Your task to perform on an android device: Open the calendar app, open the side menu, and click the "Day" option Image 0: 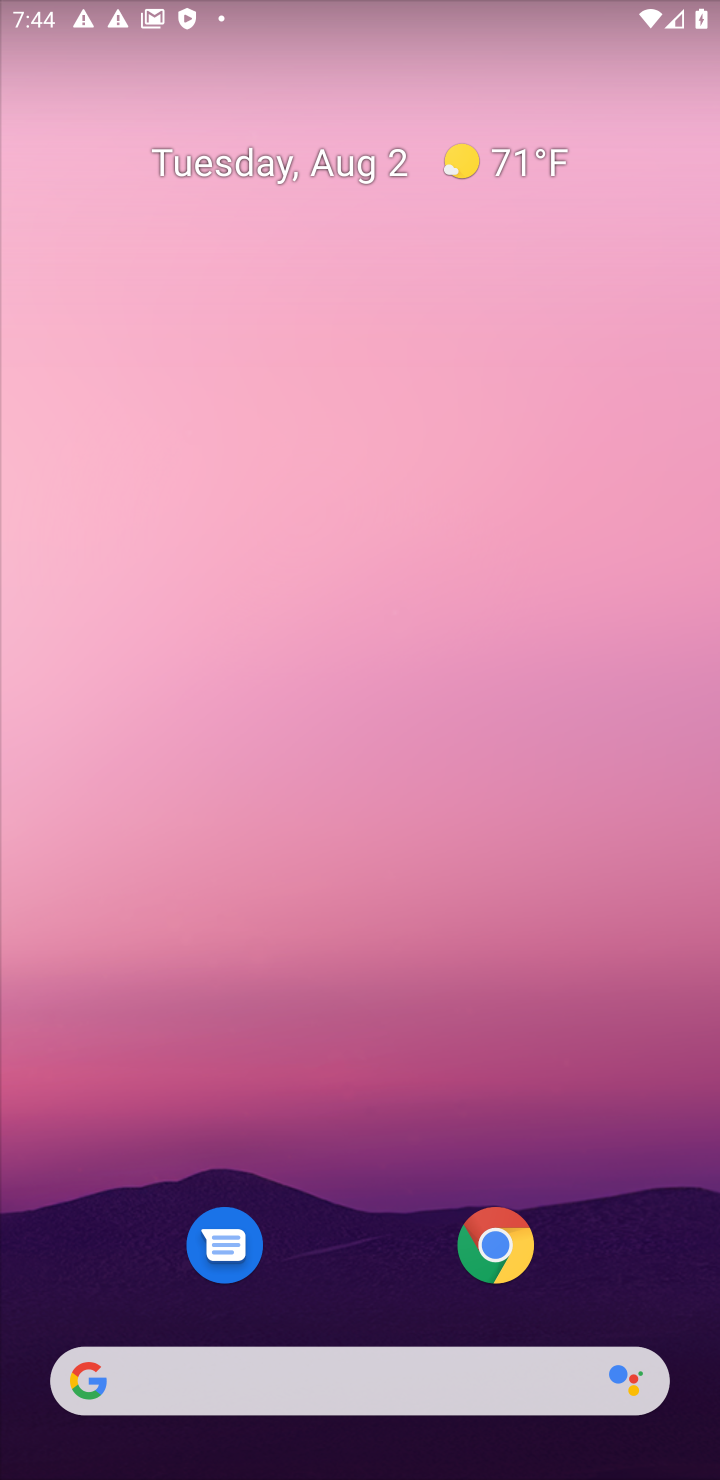
Step 0: click (328, 1248)
Your task to perform on an android device: Open the calendar app, open the side menu, and click the "Day" option Image 1: 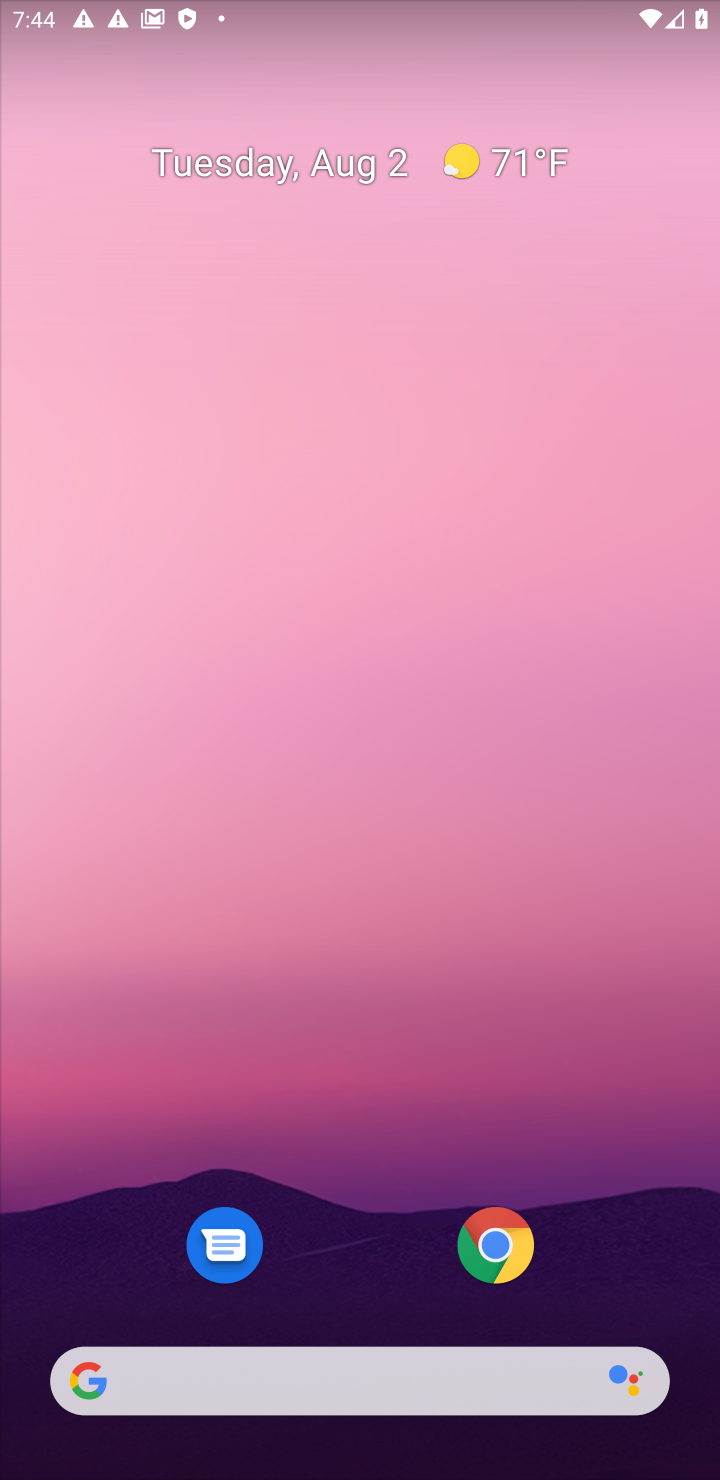
Step 1: click (286, 1247)
Your task to perform on an android device: Open the calendar app, open the side menu, and click the "Day" option Image 2: 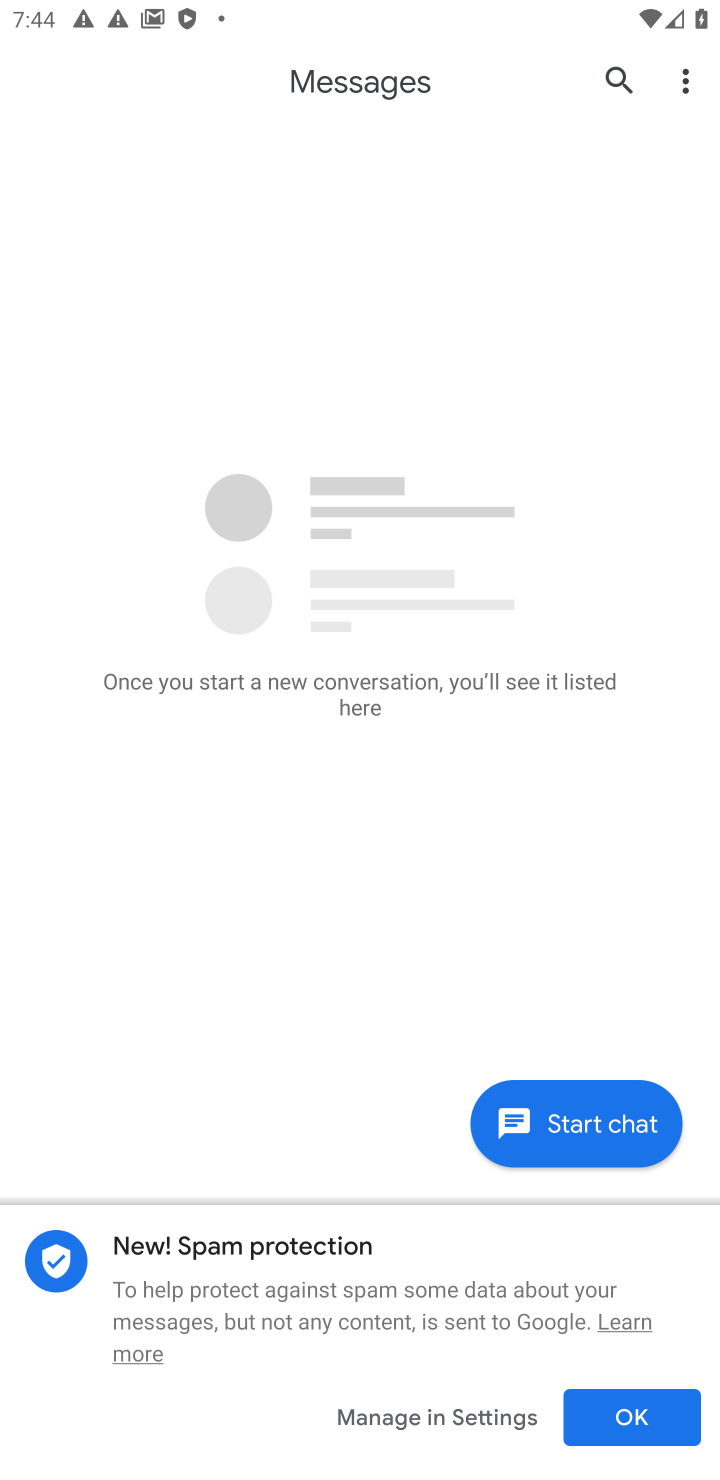
Step 2: press back button
Your task to perform on an android device: Open the calendar app, open the side menu, and click the "Day" option Image 3: 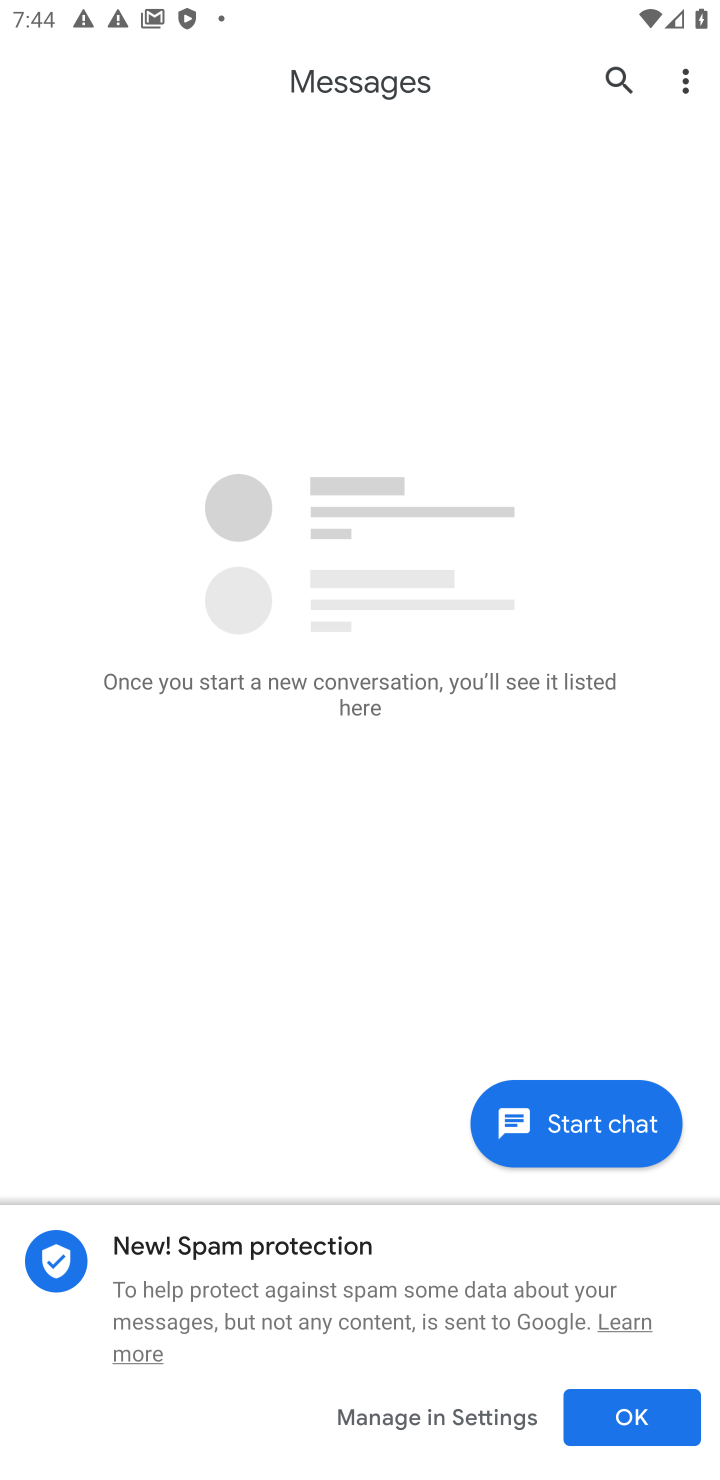
Step 3: press back button
Your task to perform on an android device: Open the calendar app, open the side menu, and click the "Day" option Image 4: 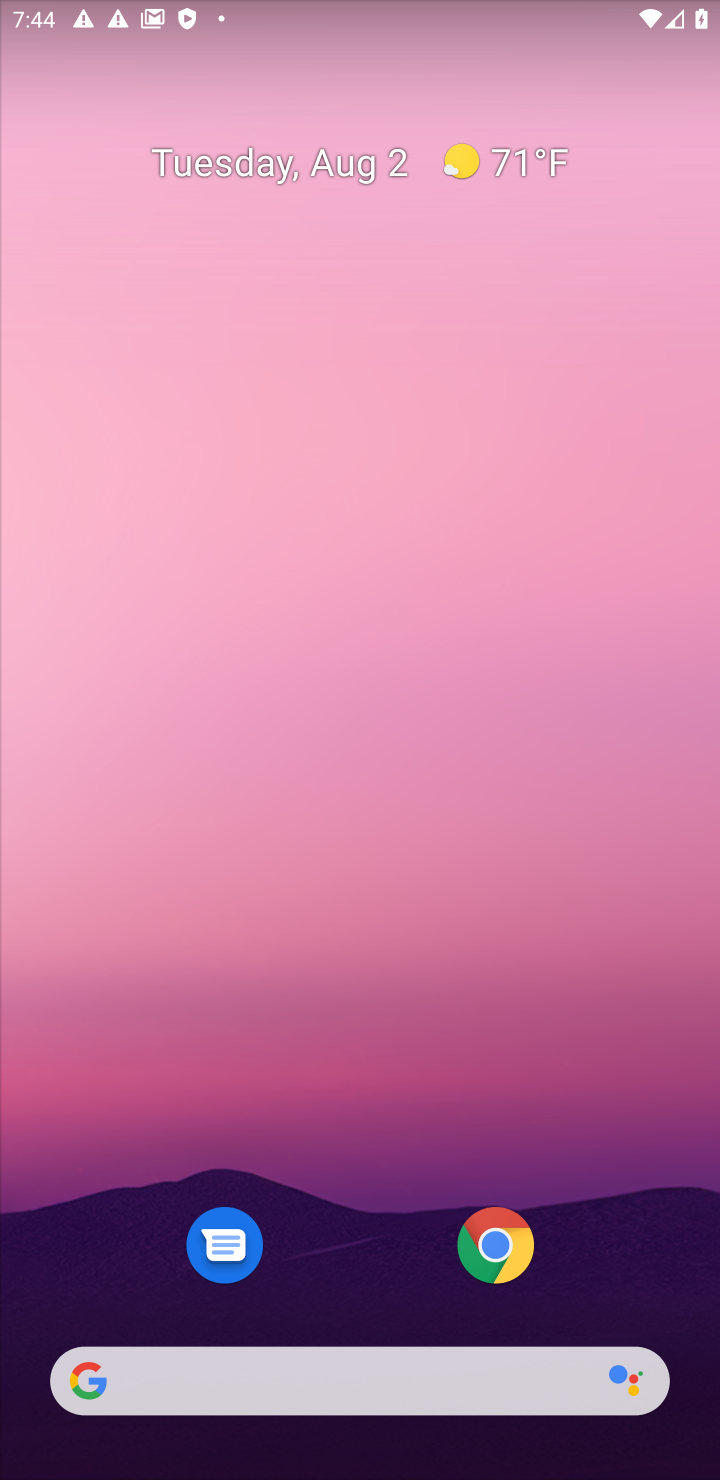
Step 4: drag from (345, 960) to (345, 232)
Your task to perform on an android device: Open the calendar app, open the side menu, and click the "Day" option Image 5: 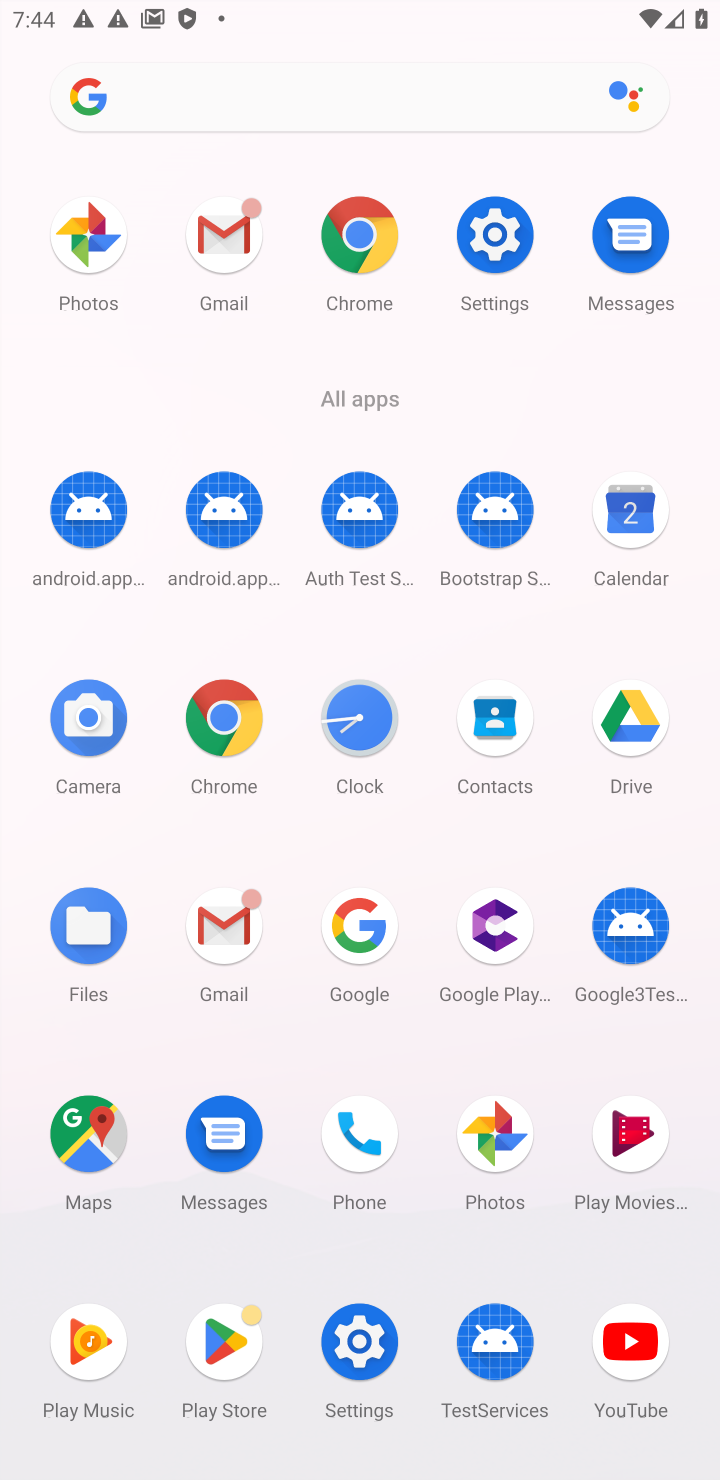
Step 5: click (612, 561)
Your task to perform on an android device: Open the calendar app, open the side menu, and click the "Day" option Image 6: 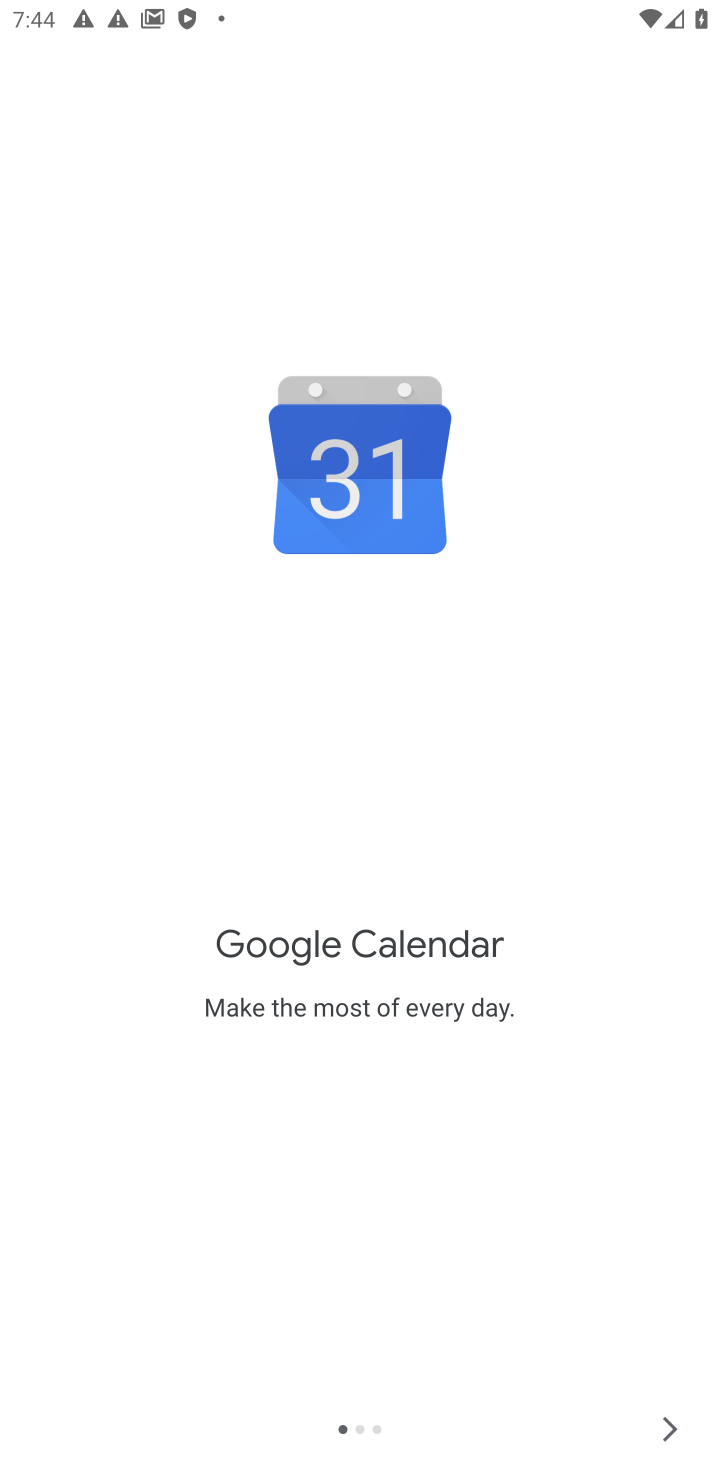
Step 6: click (665, 1431)
Your task to perform on an android device: Open the calendar app, open the side menu, and click the "Day" option Image 7: 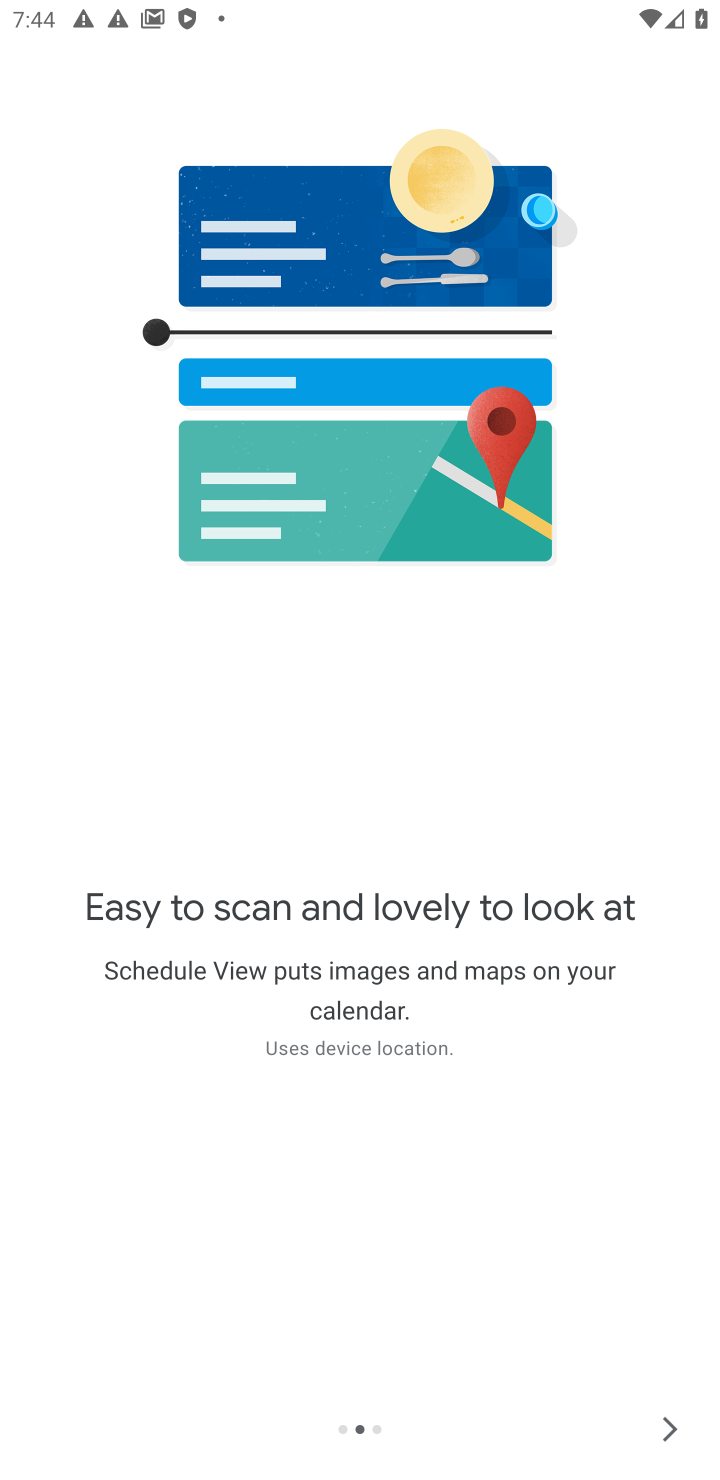
Step 7: click (665, 1431)
Your task to perform on an android device: Open the calendar app, open the side menu, and click the "Day" option Image 8: 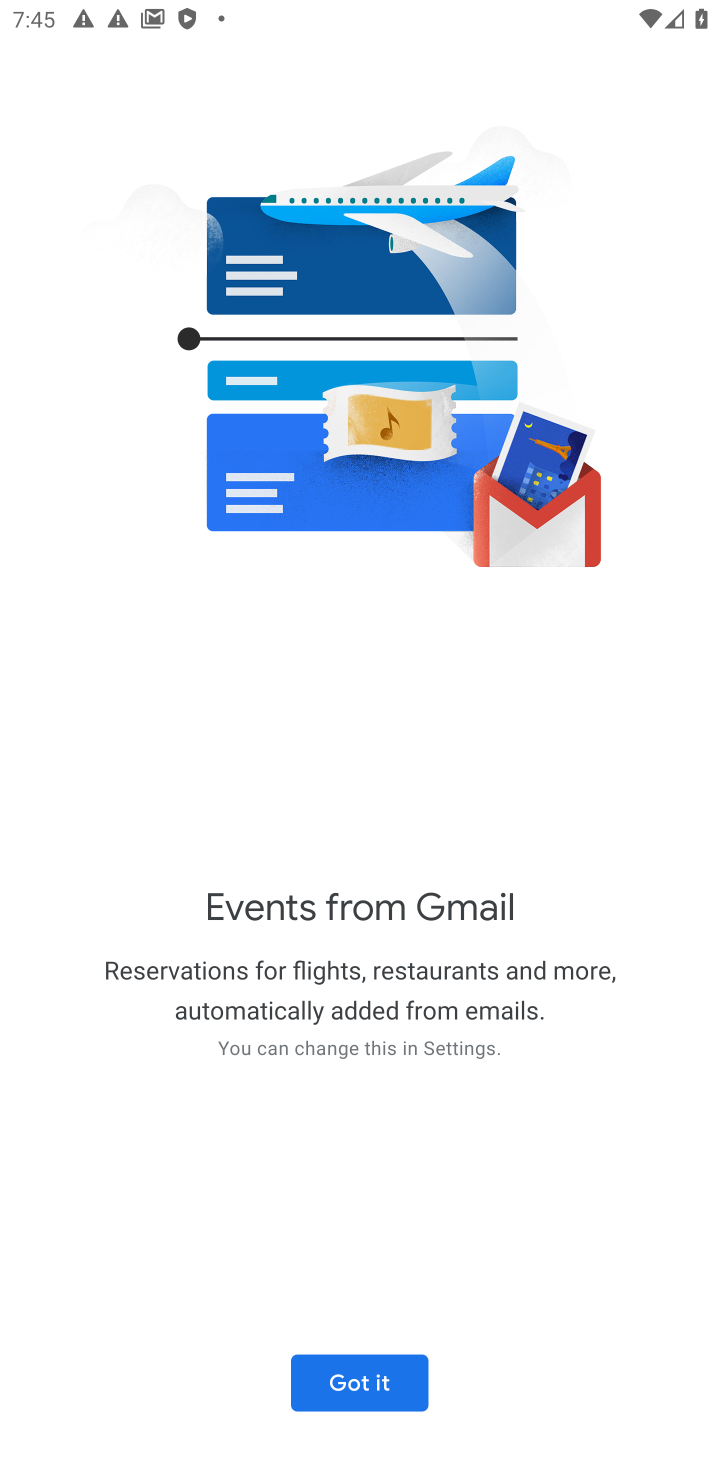
Step 8: click (332, 1387)
Your task to perform on an android device: Open the calendar app, open the side menu, and click the "Day" option Image 9: 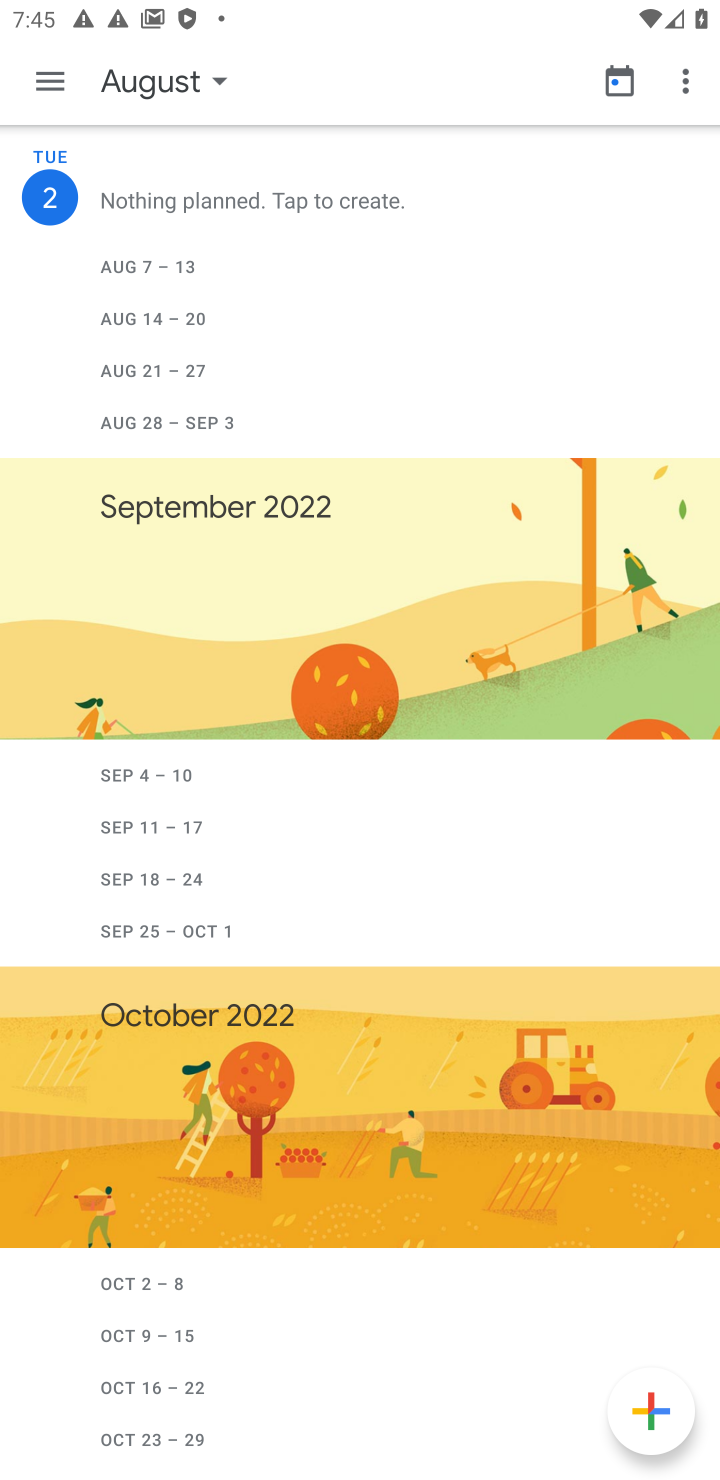
Step 9: press back button
Your task to perform on an android device: Open the calendar app, open the side menu, and click the "Day" option Image 10: 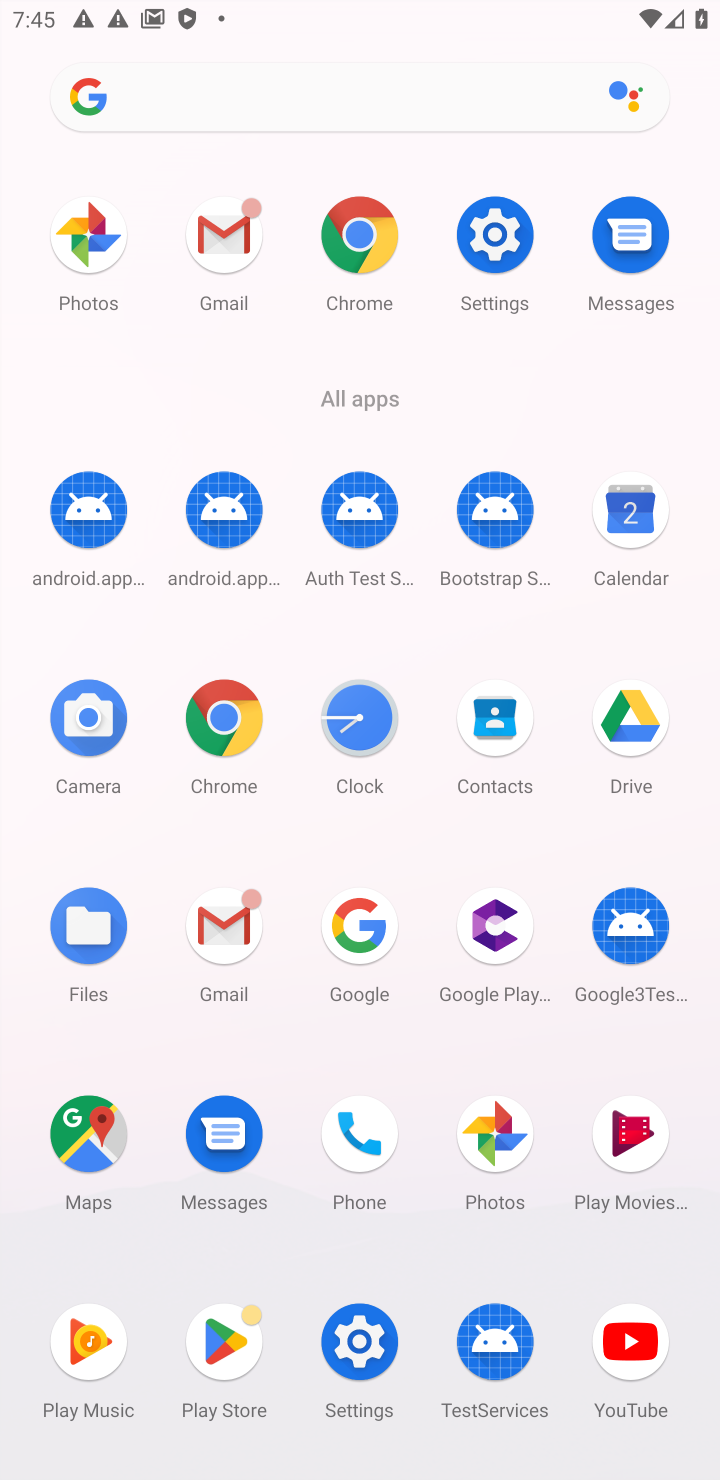
Step 10: click (615, 565)
Your task to perform on an android device: Open the calendar app, open the side menu, and click the "Day" option Image 11: 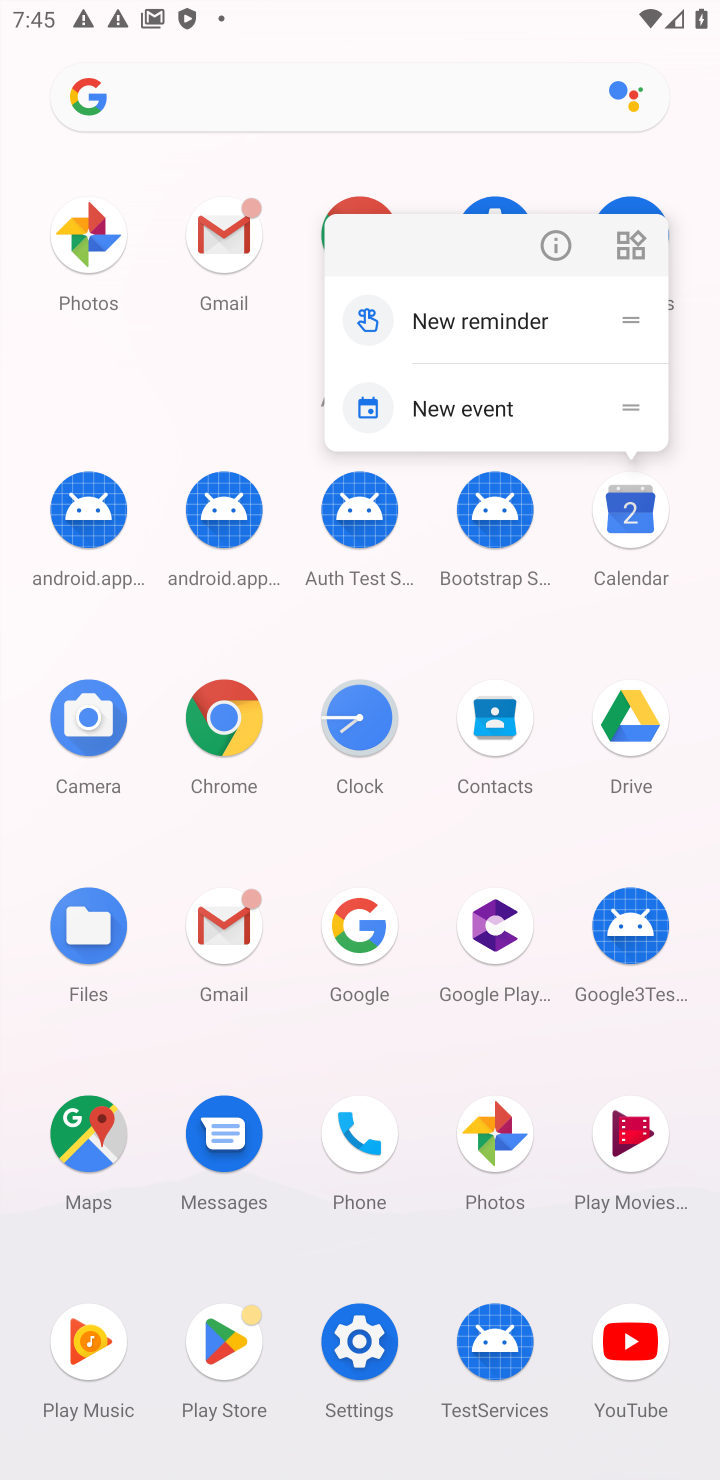
Step 11: click (655, 576)
Your task to perform on an android device: Open the calendar app, open the side menu, and click the "Day" option Image 12: 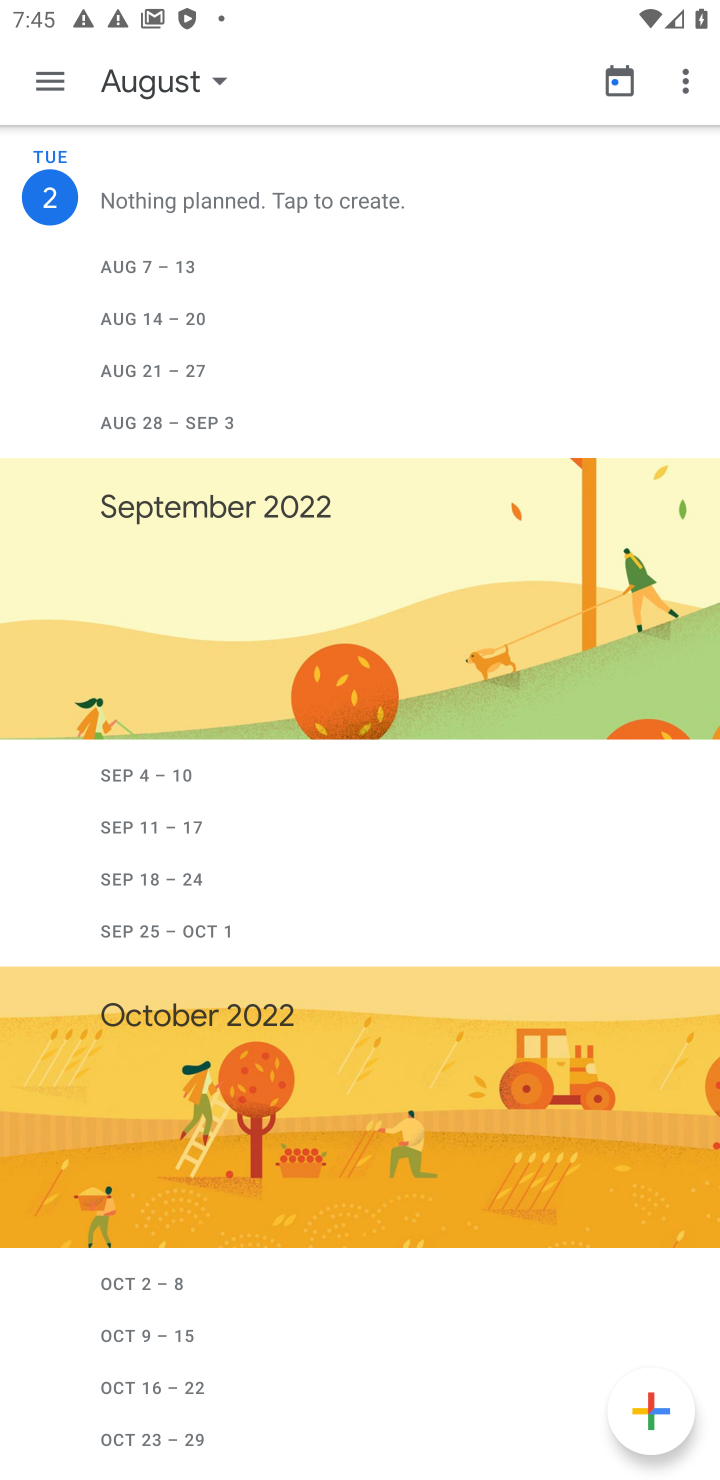
Step 12: click (45, 82)
Your task to perform on an android device: Open the calendar app, open the side menu, and click the "Day" option Image 13: 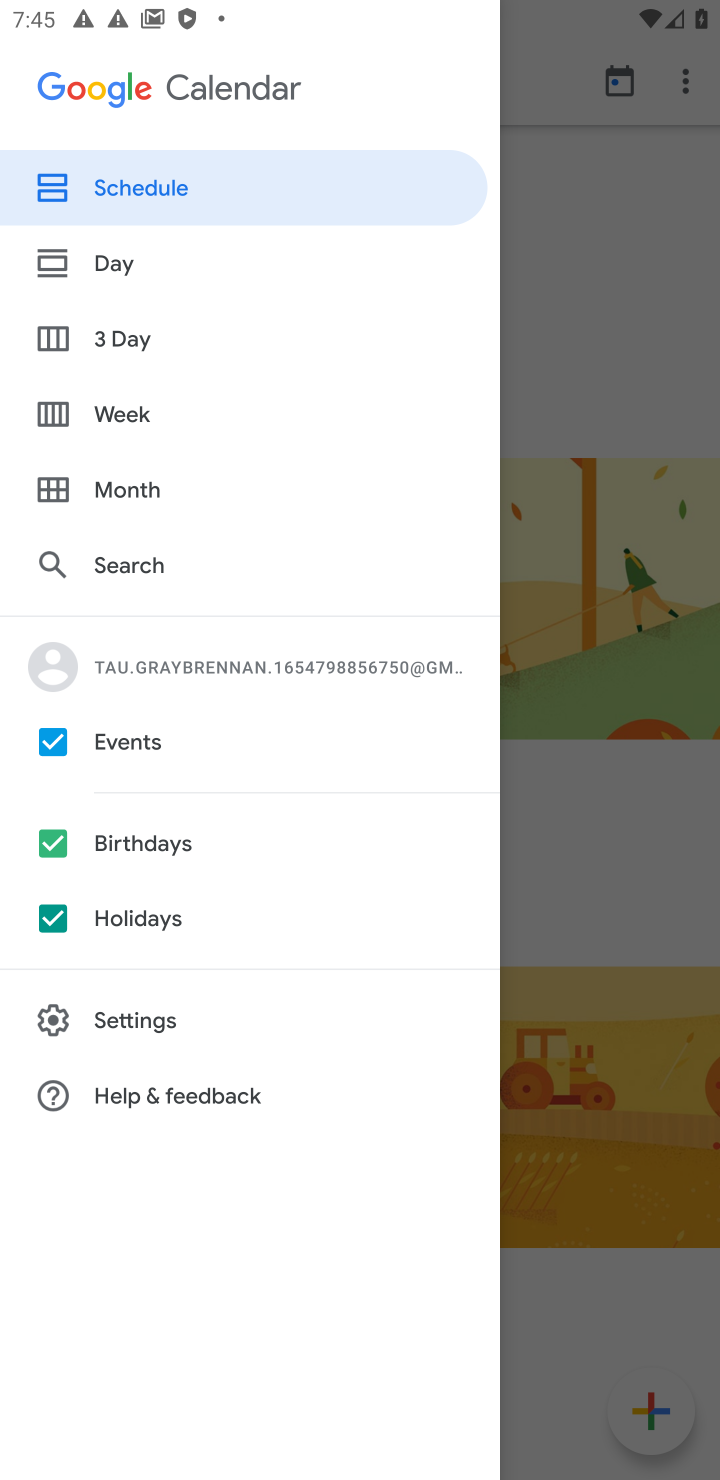
Step 13: click (104, 269)
Your task to perform on an android device: Open the calendar app, open the side menu, and click the "Day" option Image 14: 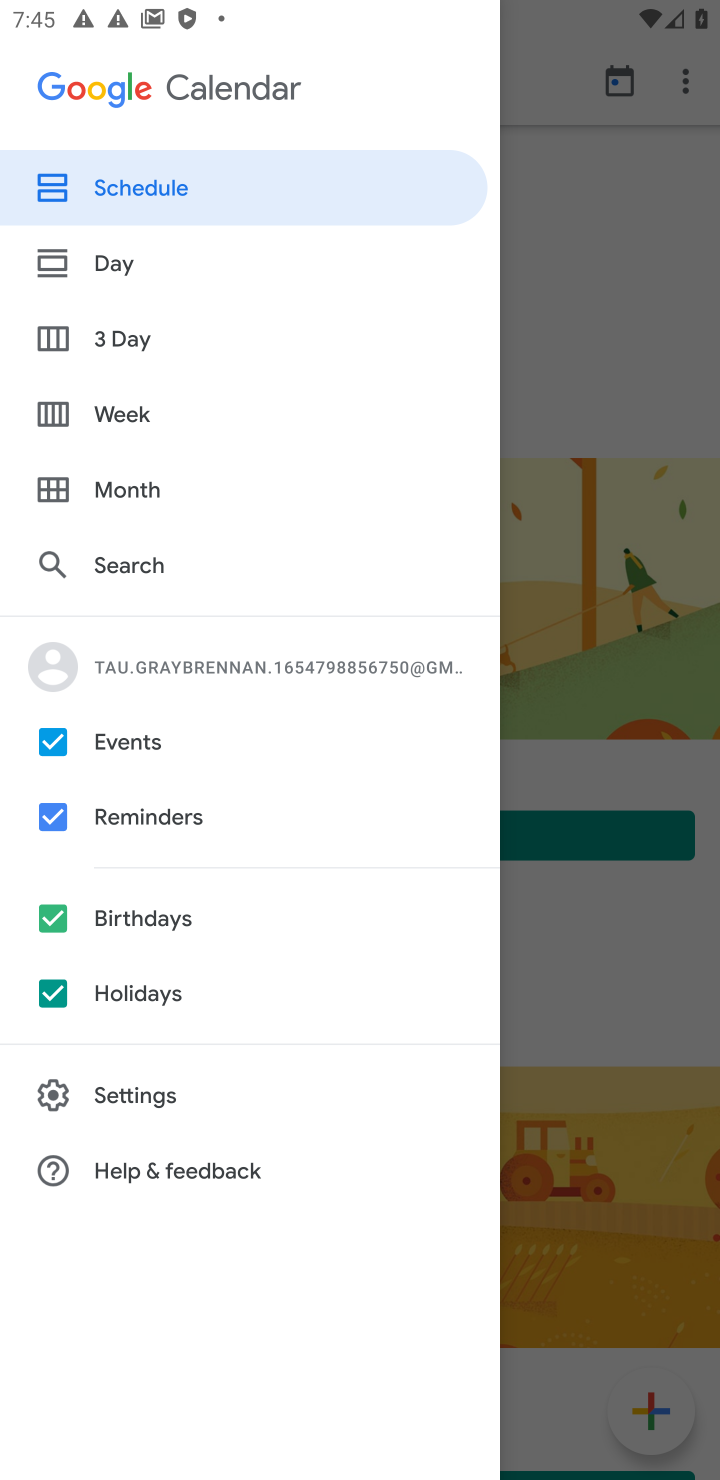
Step 14: click (104, 269)
Your task to perform on an android device: Open the calendar app, open the side menu, and click the "Day" option Image 15: 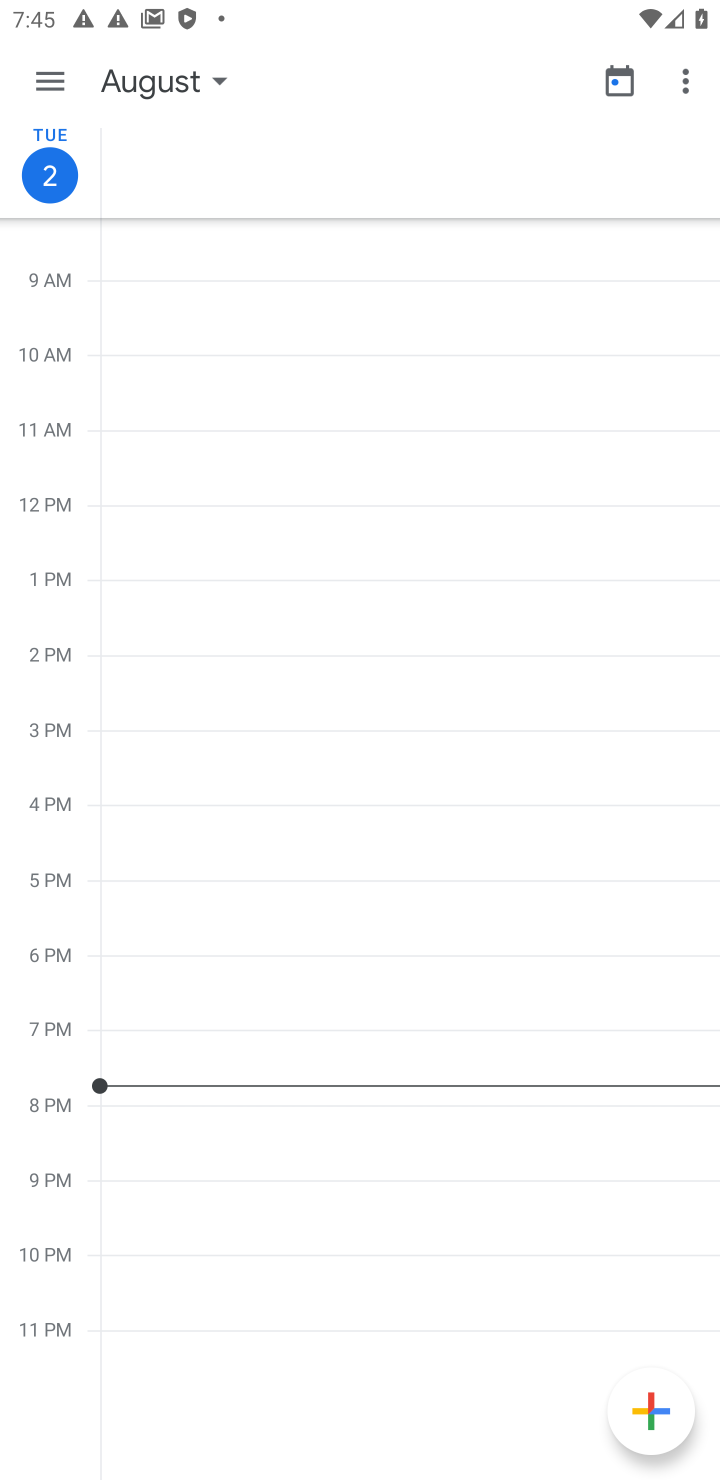
Step 15: task complete